Your task to perform on an android device: Search for flights from Buenos aires to Helsinki Image 0: 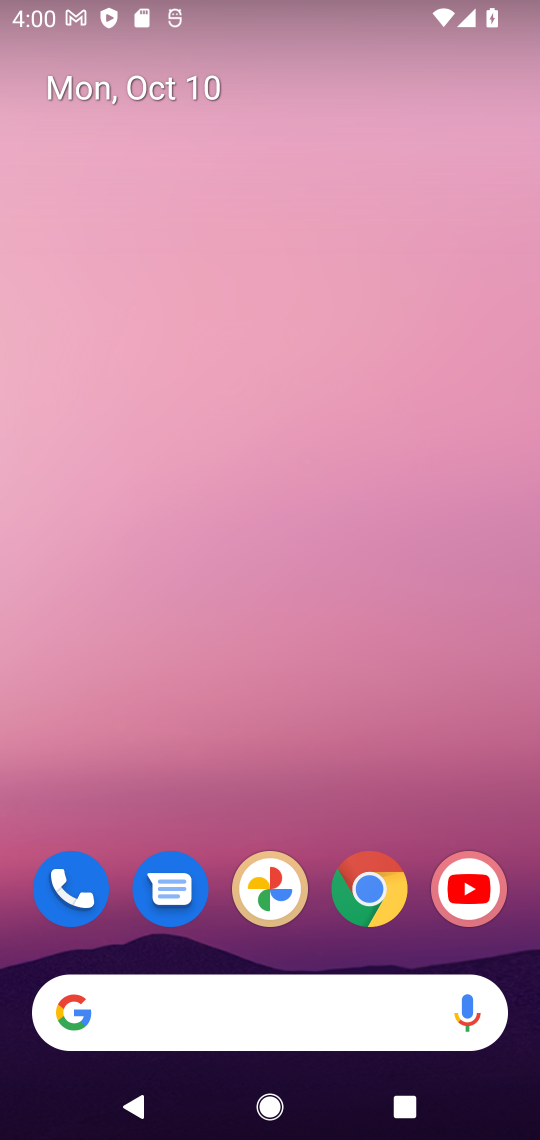
Step 0: click (366, 888)
Your task to perform on an android device: Search for flights from Buenos aires to Helsinki Image 1: 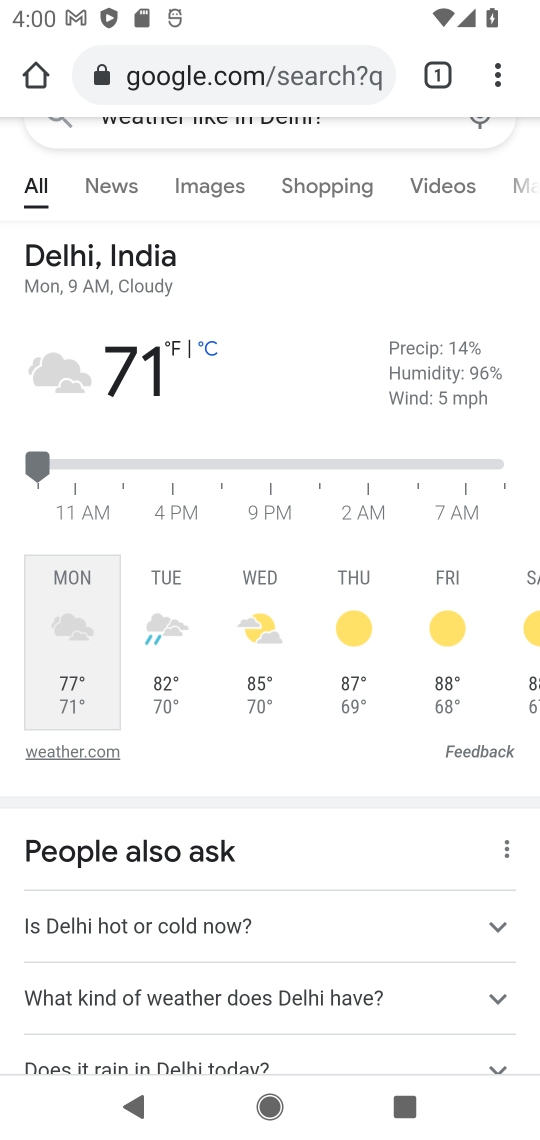
Step 1: click (273, 48)
Your task to perform on an android device: Search for flights from Buenos aires to Helsinki Image 2: 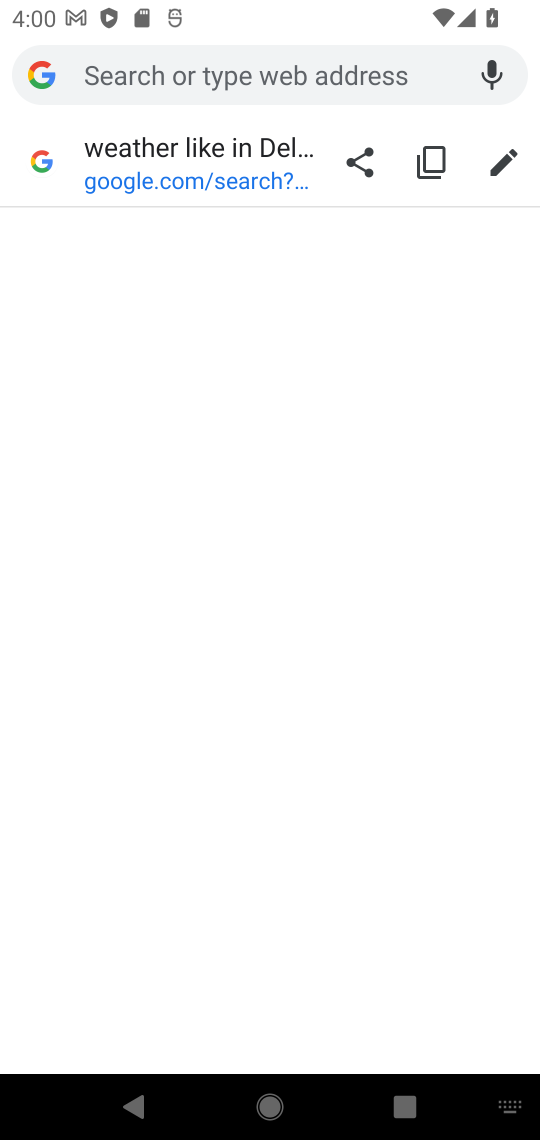
Step 2: type " flights from Buenos aires to Helsinki"
Your task to perform on an android device: Search for flights from Buenos aires to Helsinki Image 3: 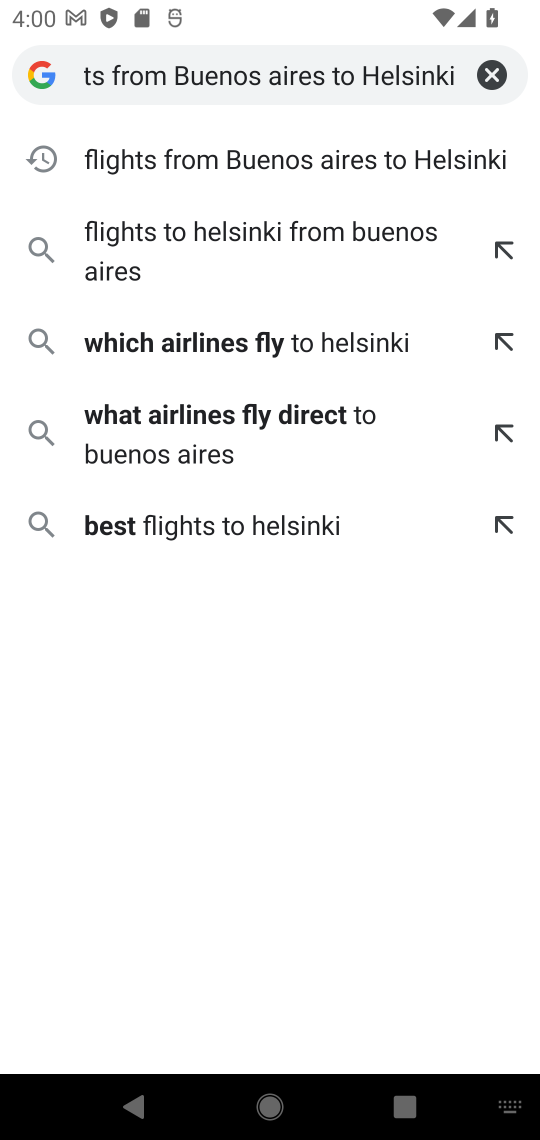
Step 3: click (228, 148)
Your task to perform on an android device: Search for flights from Buenos aires to Helsinki Image 4: 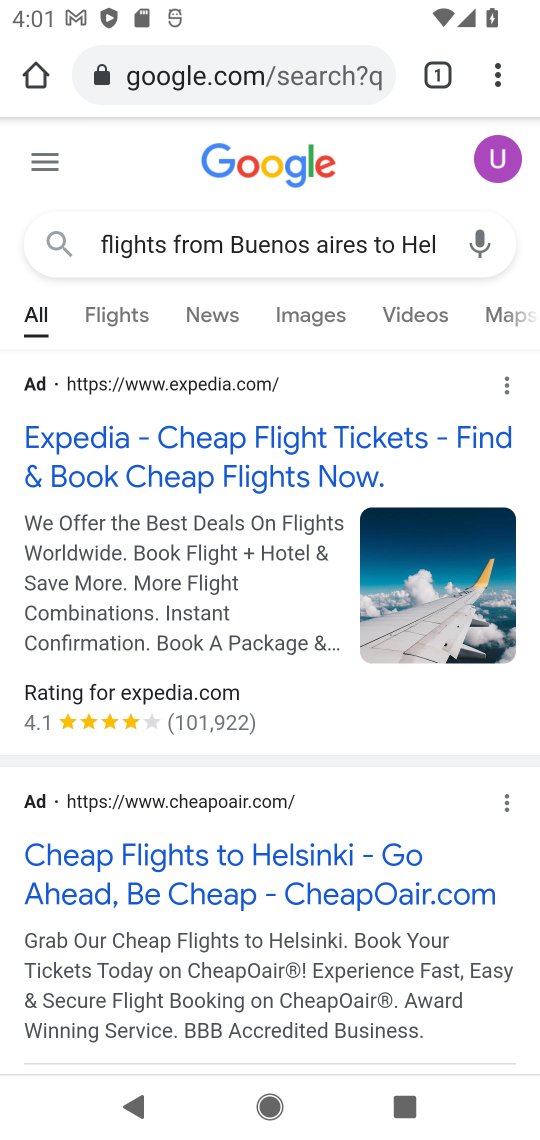
Step 4: click (190, 434)
Your task to perform on an android device: Search for flights from Buenos aires to Helsinki Image 5: 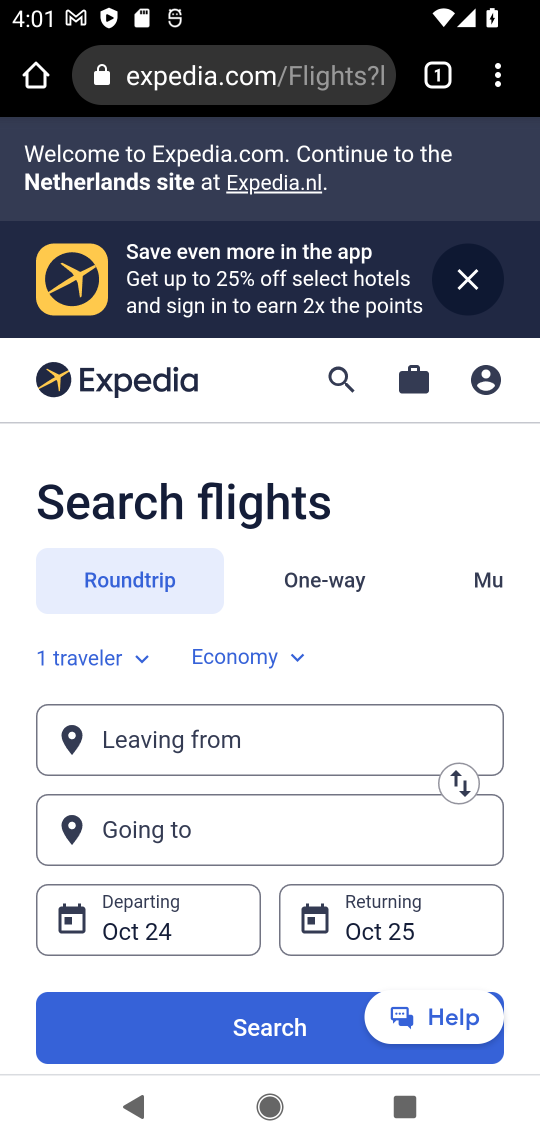
Step 5: click (191, 733)
Your task to perform on an android device: Search for flights from Buenos aires to Helsinki Image 6: 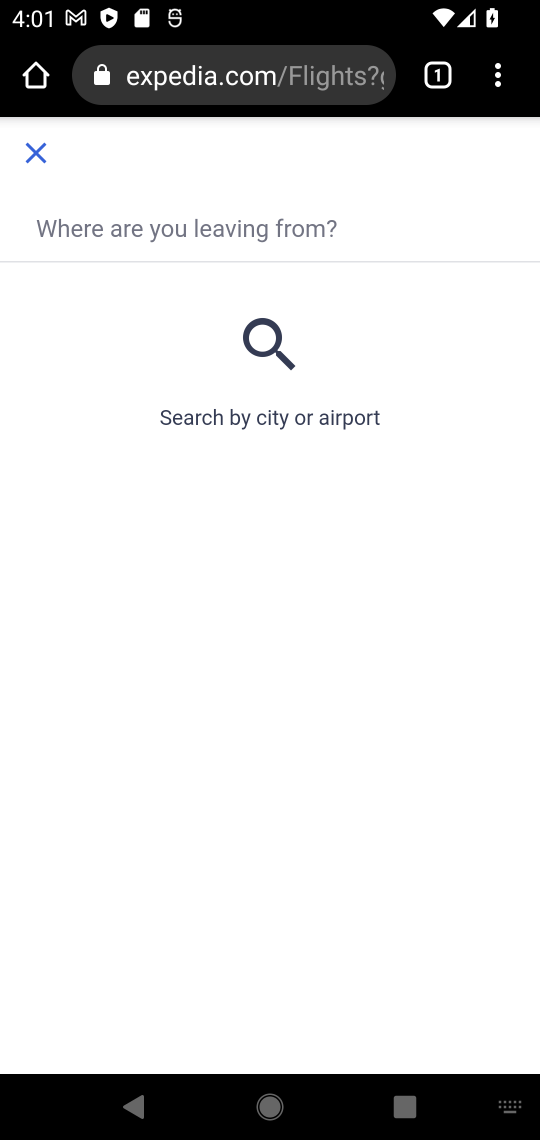
Step 6: type "Buenos aires"
Your task to perform on an android device: Search for flights from Buenos aires to Helsinki Image 7: 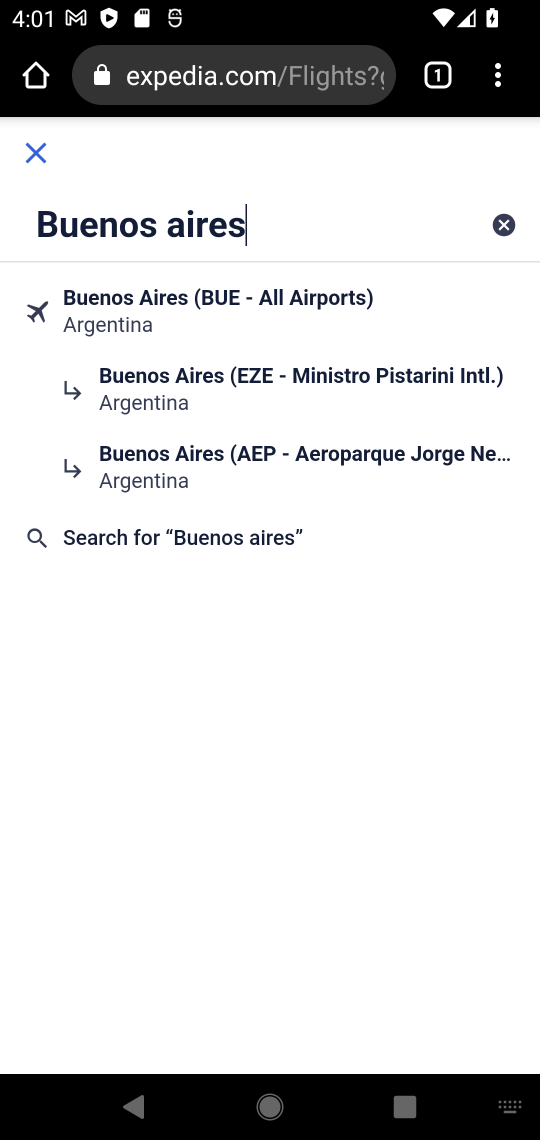
Step 7: click (125, 306)
Your task to perform on an android device: Search for flights from Buenos aires to Helsinki Image 8: 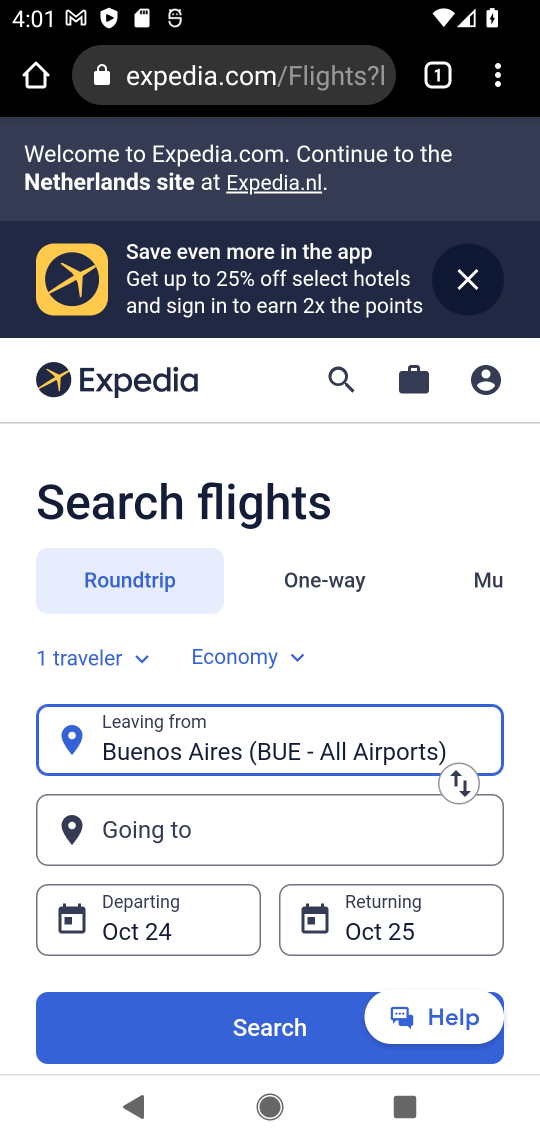
Step 8: click (222, 825)
Your task to perform on an android device: Search for flights from Buenos aires to Helsinki Image 9: 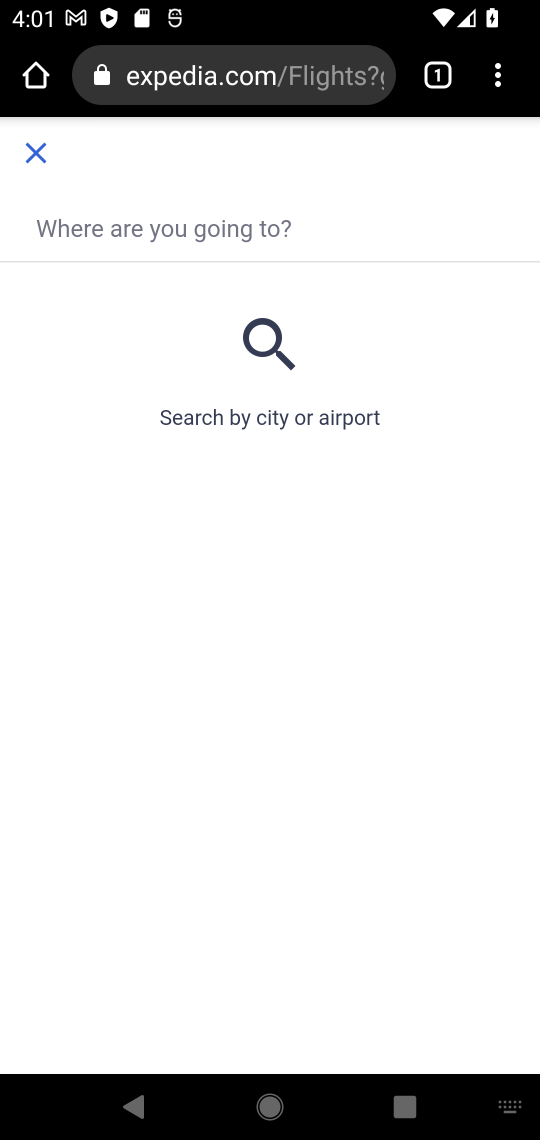
Step 9: type "Helsinki"
Your task to perform on an android device: Search for flights from Buenos aires to Helsinki Image 10: 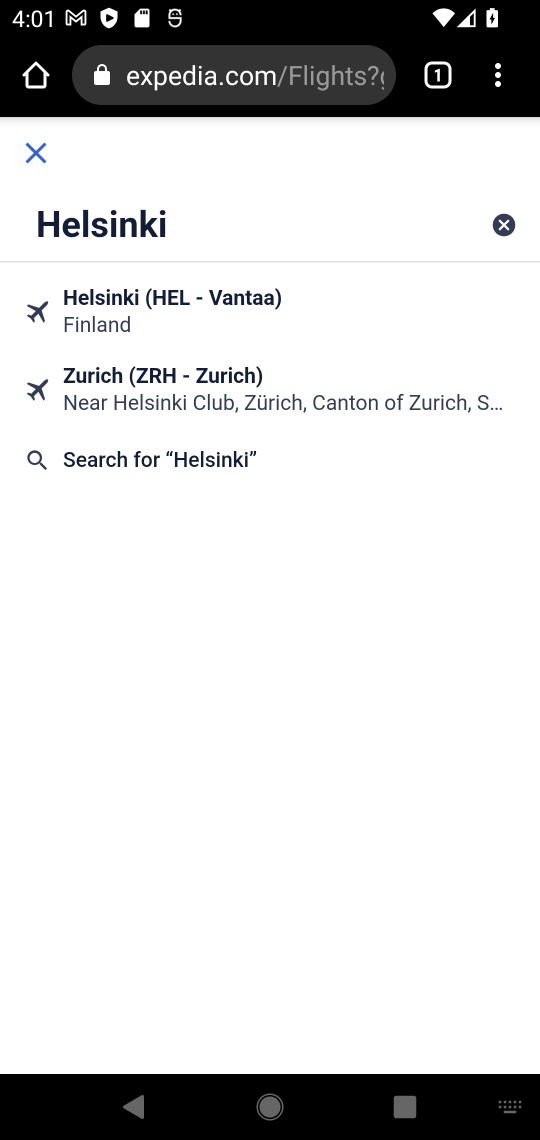
Step 10: click (126, 303)
Your task to perform on an android device: Search for flights from Buenos aires to Helsinki Image 11: 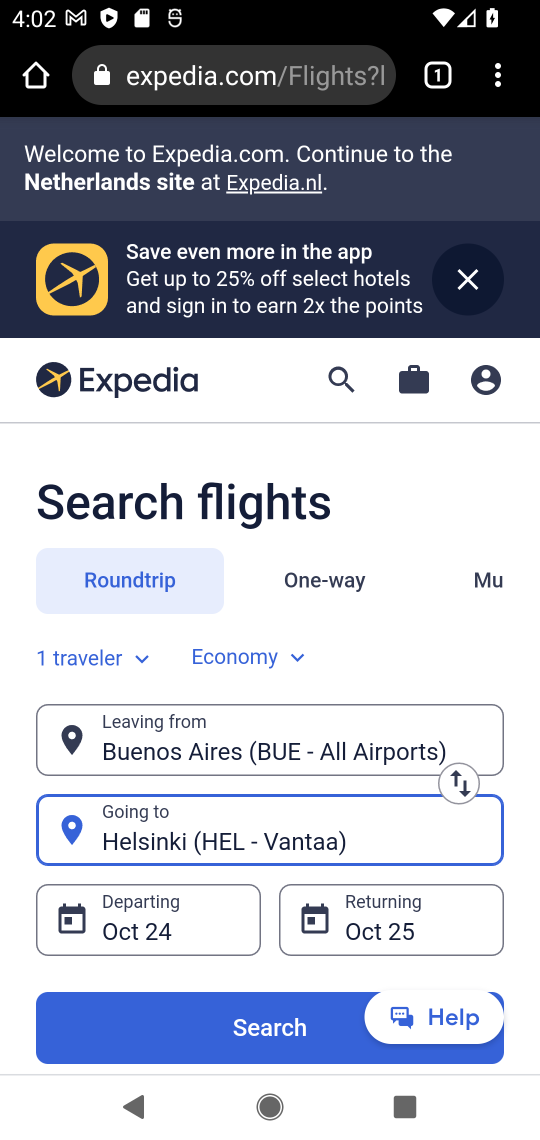
Step 11: click (259, 1028)
Your task to perform on an android device: Search for flights from Buenos aires to Helsinki Image 12: 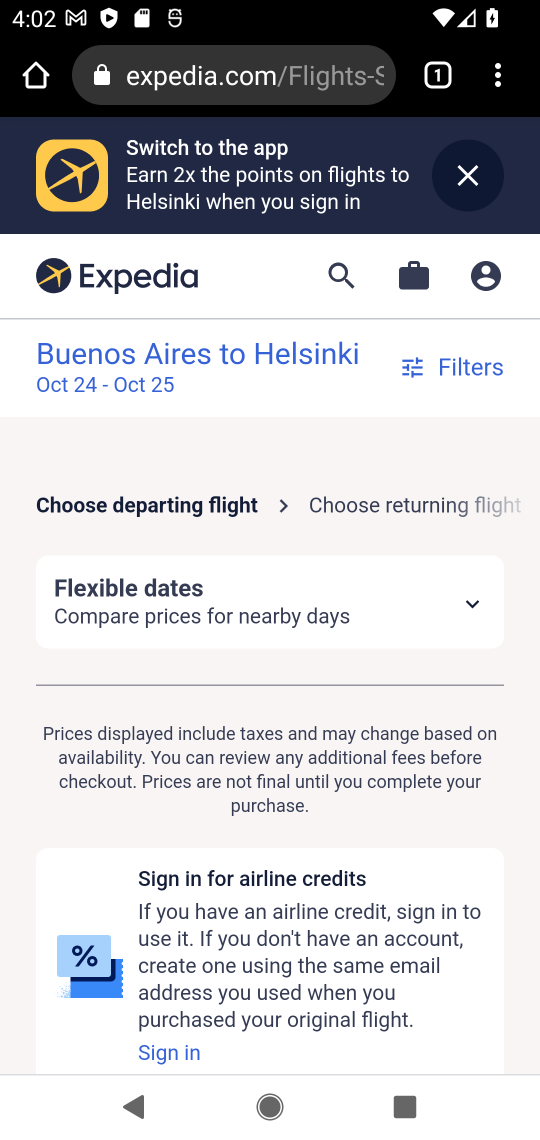
Step 12: task complete